Your task to perform on an android device: open device folders in google photos Image 0: 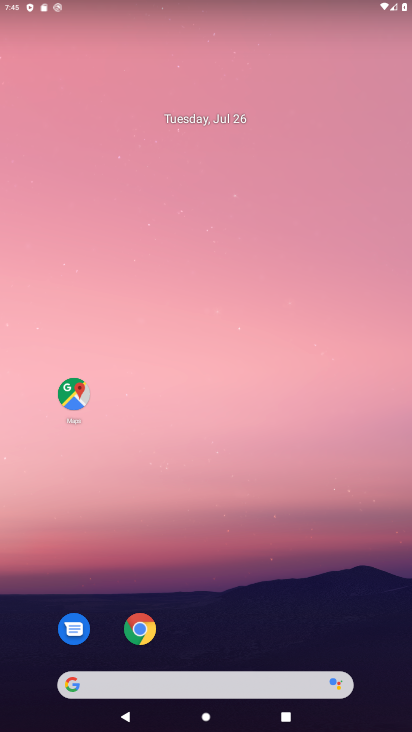
Step 0: press home button
Your task to perform on an android device: open device folders in google photos Image 1: 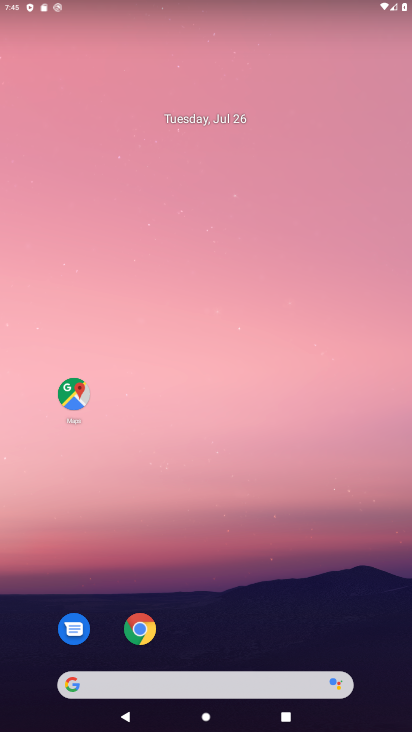
Step 1: drag from (198, 647) to (202, 123)
Your task to perform on an android device: open device folders in google photos Image 2: 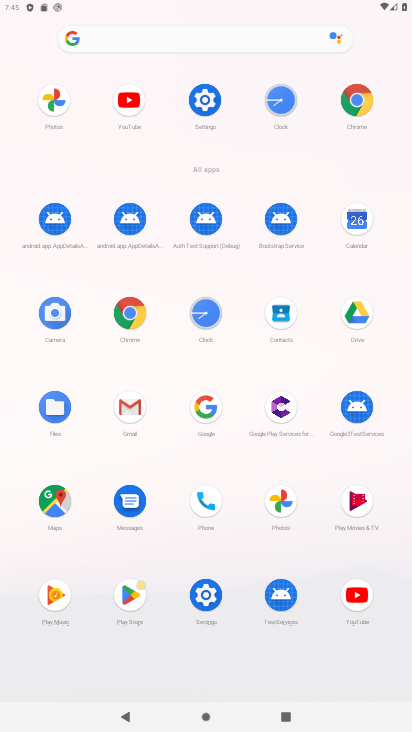
Step 2: click (280, 497)
Your task to perform on an android device: open device folders in google photos Image 3: 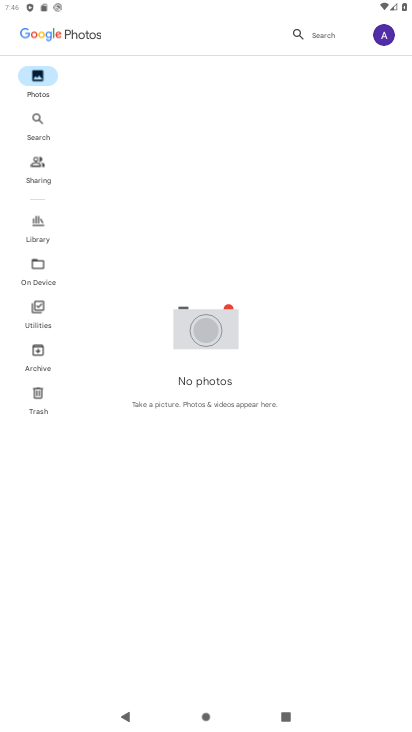
Step 3: click (296, 33)
Your task to perform on an android device: open device folders in google photos Image 4: 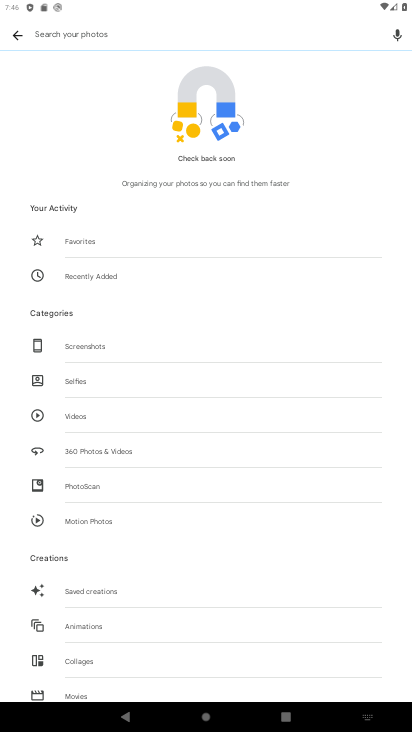
Step 4: type "device"
Your task to perform on an android device: open device folders in google photos Image 5: 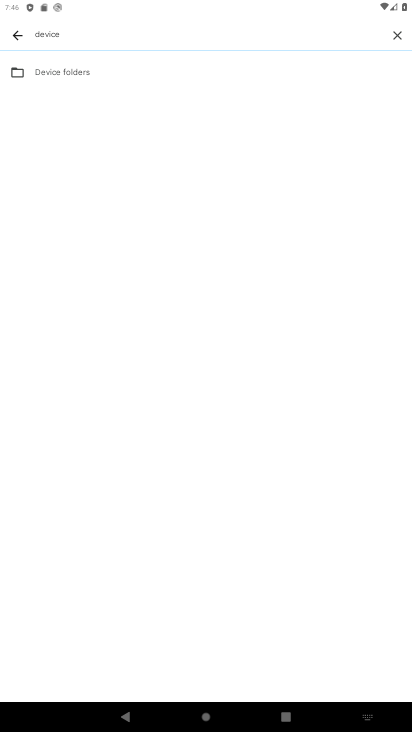
Step 5: click (64, 70)
Your task to perform on an android device: open device folders in google photos Image 6: 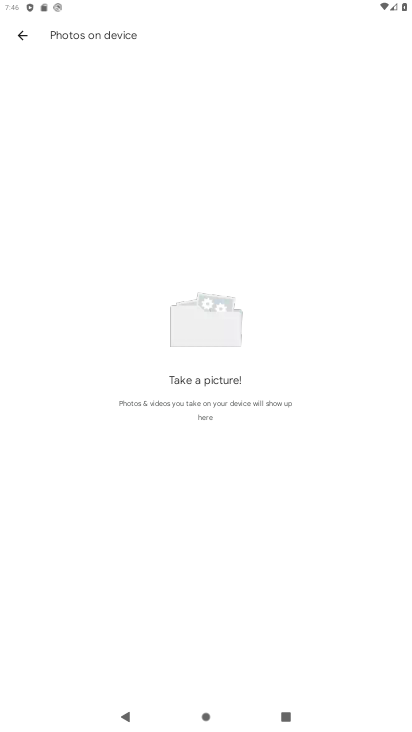
Step 6: task complete